Your task to perform on an android device: Open calendar and show me the second week of next month Image 0: 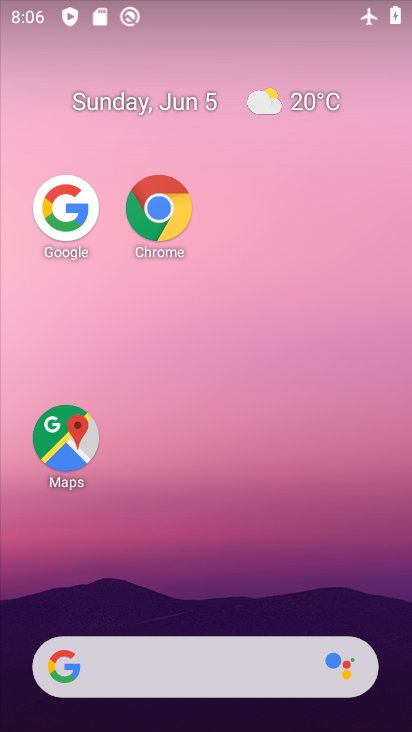
Step 0: drag from (233, 614) to (205, 22)
Your task to perform on an android device: Open calendar and show me the second week of next month Image 1: 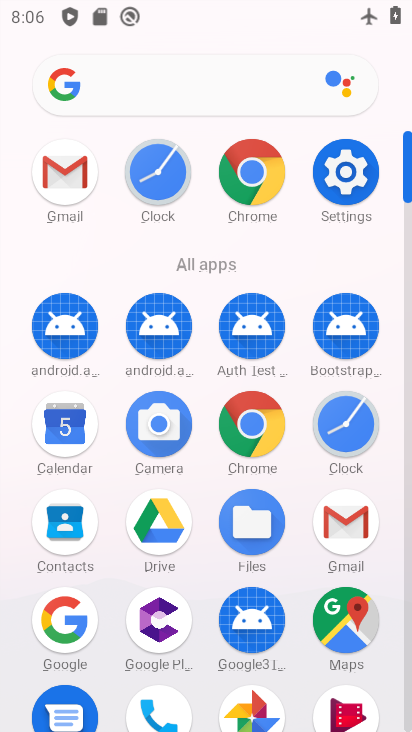
Step 1: click (64, 414)
Your task to perform on an android device: Open calendar and show me the second week of next month Image 2: 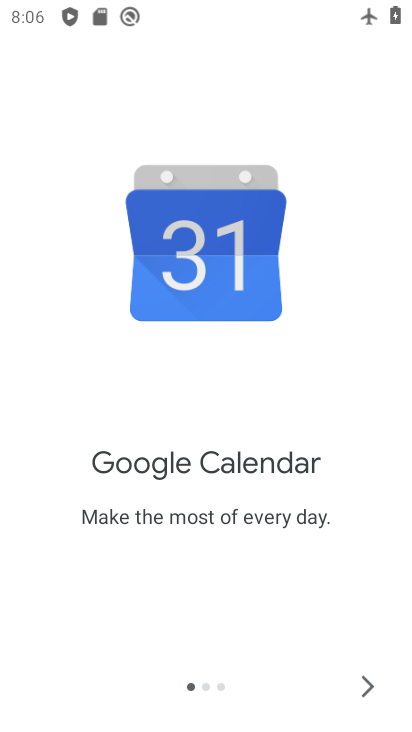
Step 2: click (355, 694)
Your task to perform on an android device: Open calendar and show me the second week of next month Image 3: 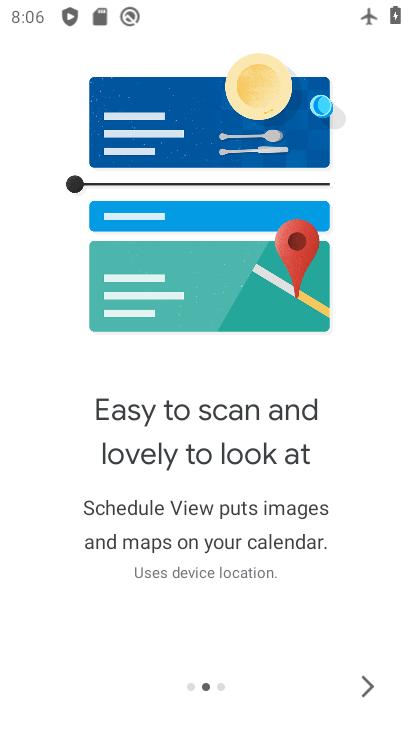
Step 3: click (355, 694)
Your task to perform on an android device: Open calendar and show me the second week of next month Image 4: 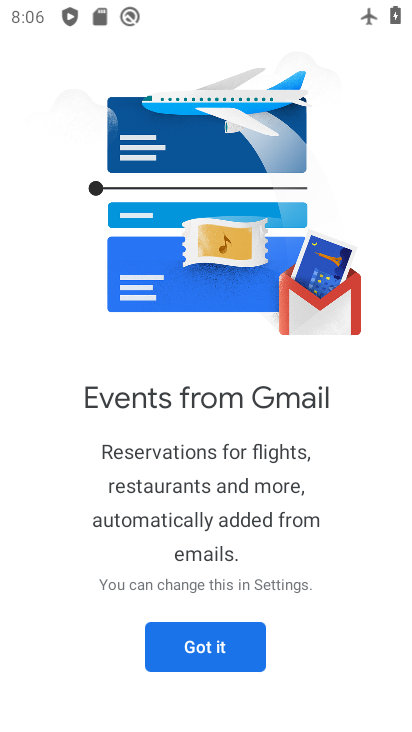
Step 4: click (224, 649)
Your task to perform on an android device: Open calendar and show me the second week of next month Image 5: 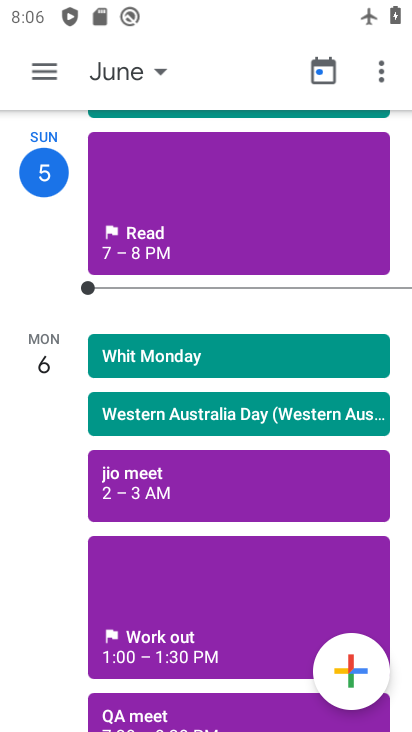
Step 5: click (45, 66)
Your task to perform on an android device: Open calendar and show me the second week of next month Image 6: 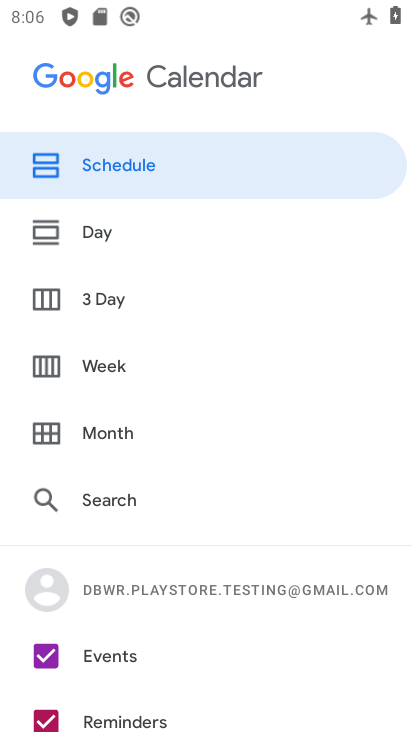
Step 6: click (83, 359)
Your task to perform on an android device: Open calendar and show me the second week of next month Image 7: 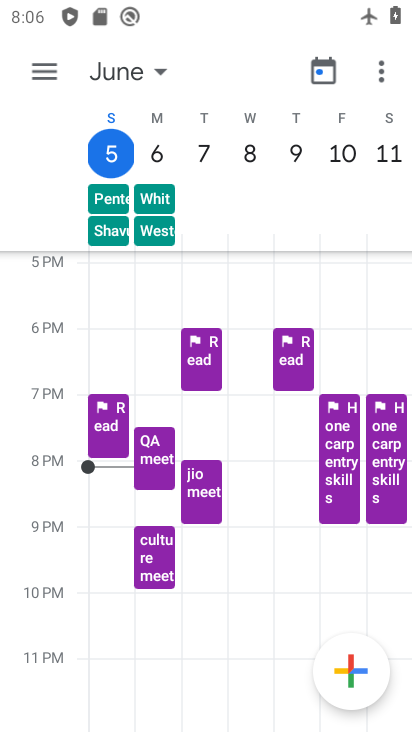
Step 7: task complete